Your task to perform on an android device: Check the weather Image 0: 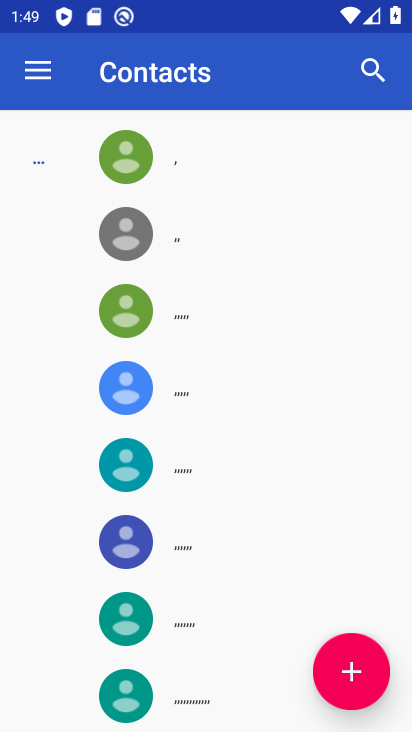
Step 0: press home button
Your task to perform on an android device: Check the weather Image 1: 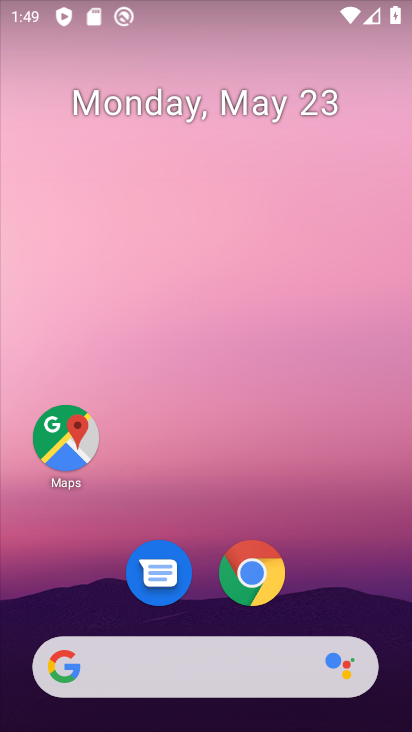
Step 1: click (261, 571)
Your task to perform on an android device: Check the weather Image 2: 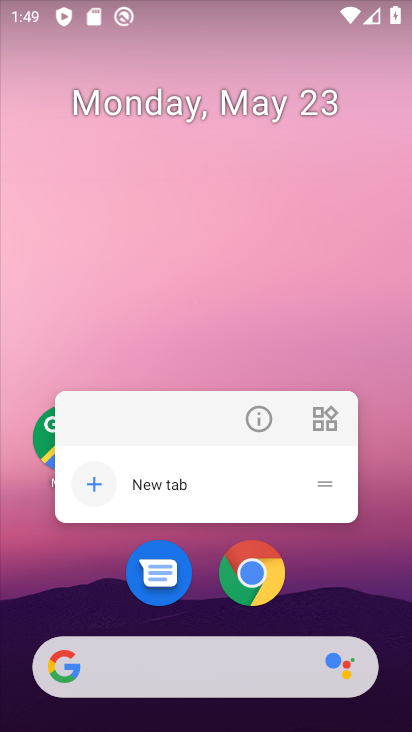
Step 2: click (260, 570)
Your task to perform on an android device: Check the weather Image 3: 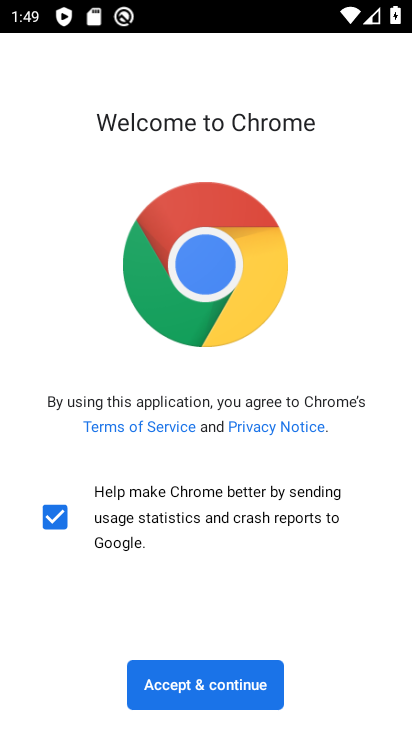
Step 3: click (232, 685)
Your task to perform on an android device: Check the weather Image 4: 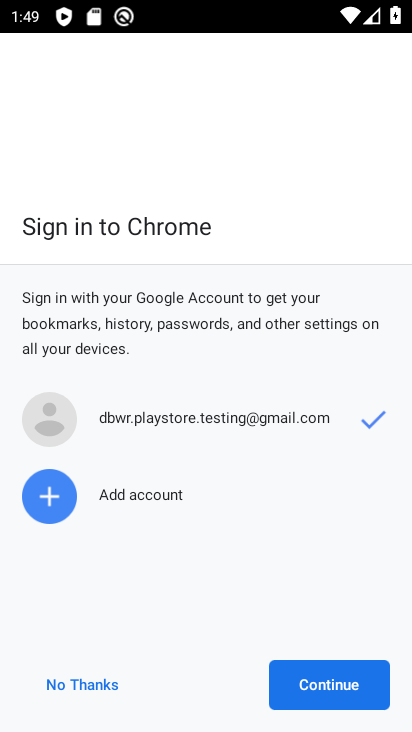
Step 4: click (317, 683)
Your task to perform on an android device: Check the weather Image 5: 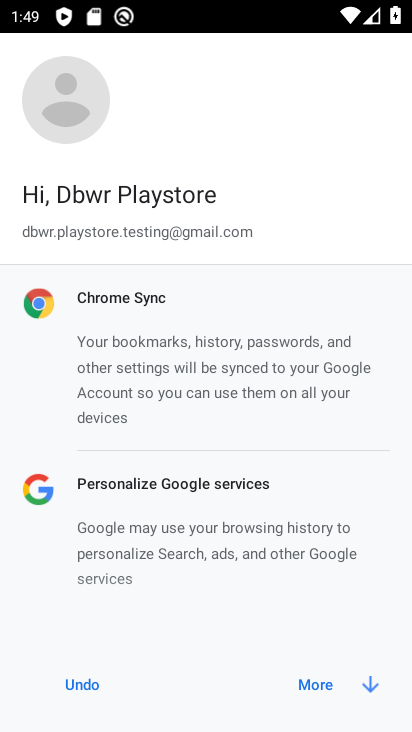
Step 5: click (315, 676)
Your task to perform on an android device: Check the weather Image 6: 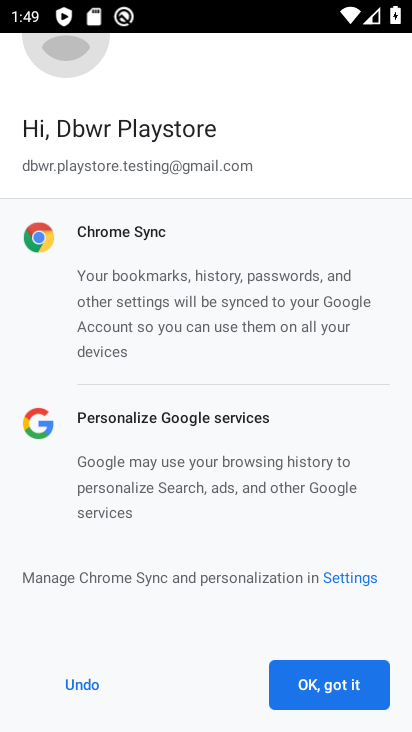
Step 6: click (315, 676)
Your task to perform on an android device: Check the weather Image 7: 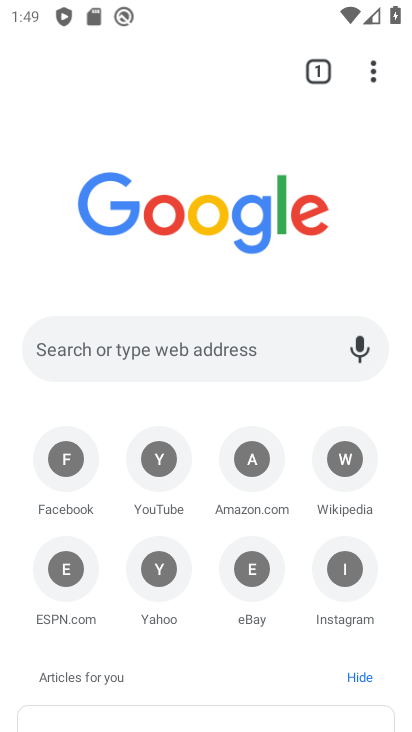
Step 7: click (174, 349)
Your task to perform on an android device: Check the weather Image 8: 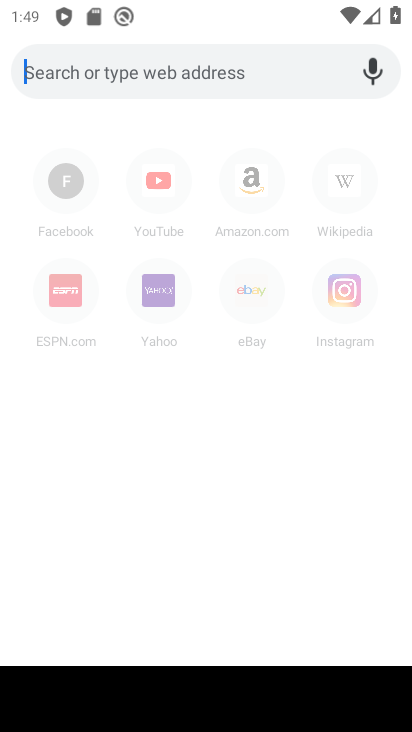
Step 8: type "weather"
Your task to perform on an android device: Check the weather Image 9: 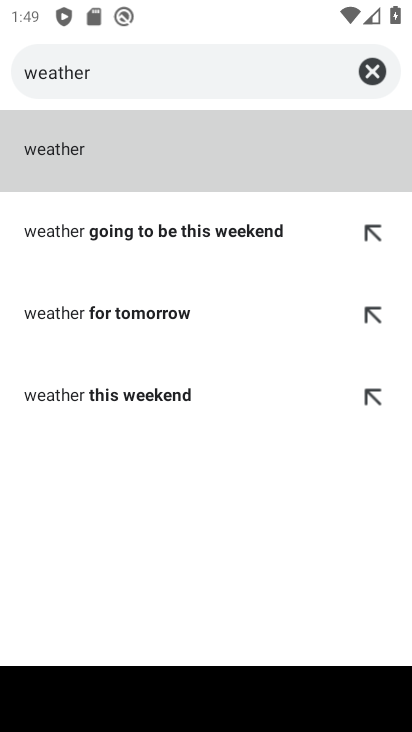
Step 9: click (55, 142)
Your task to perform on an android device: Check the weather Image 10: 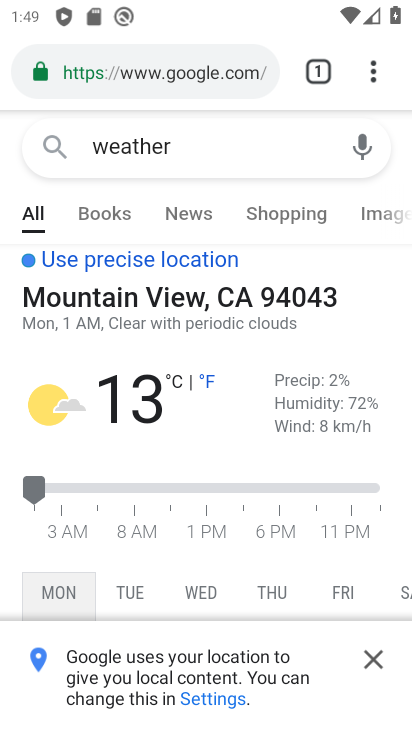
Step 10: task complete